Your task to perform on an android device: open app "Reddit" (install if not already installed) and go to login screen Image 0: 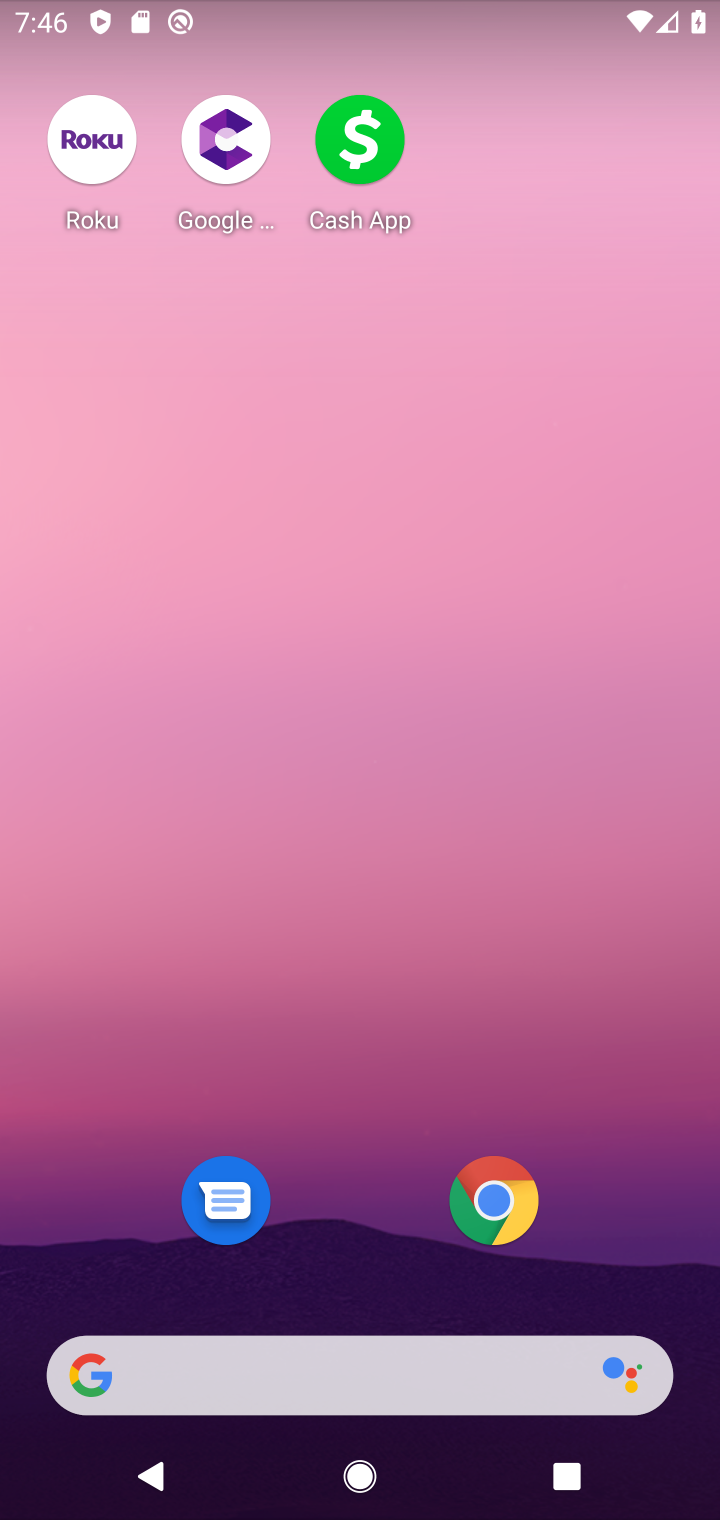
Step 0: drag from (367, 1299) to (617, 40)
Your task to perform on an android device: open app "Reddit" (install if not already installed) and go to login screen Image 1: 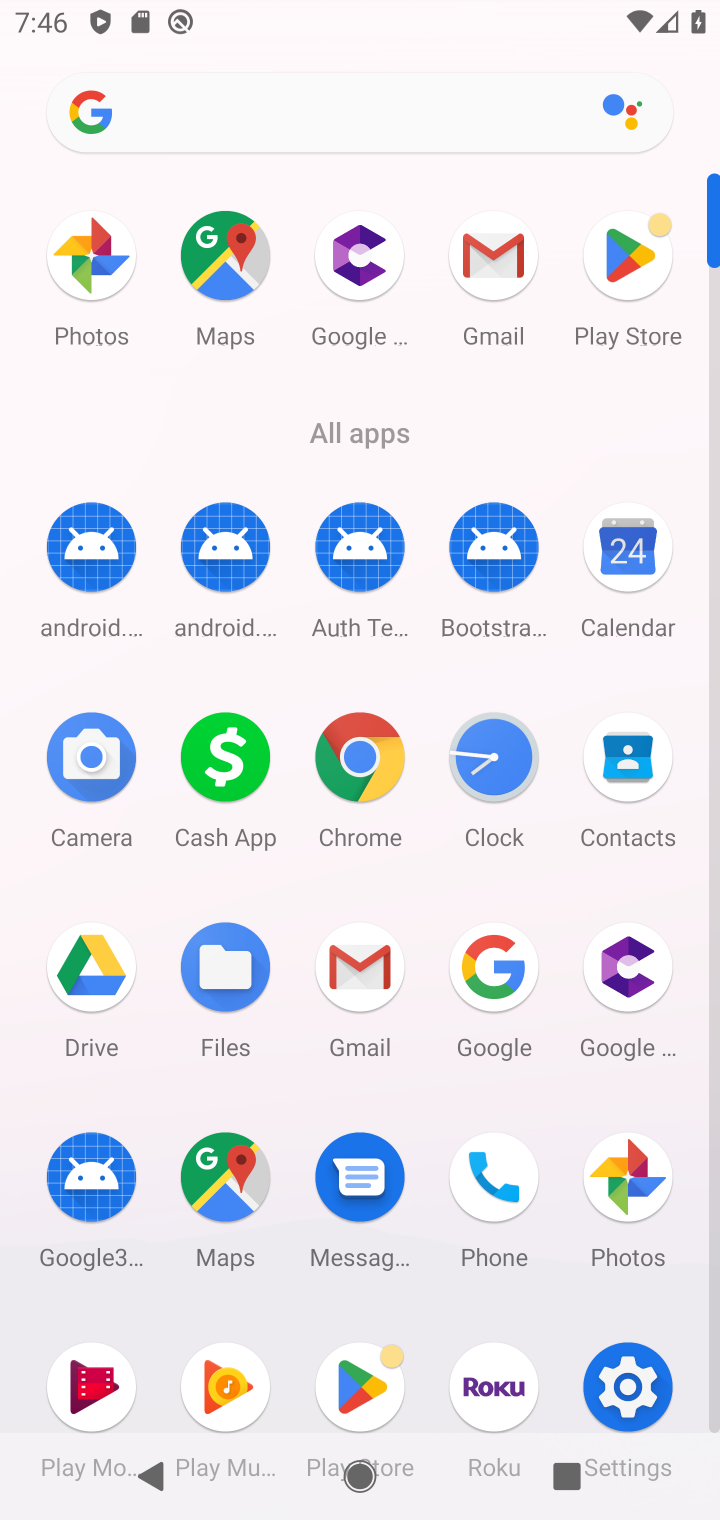
Step 1: click (654, 261)
Your task to perform on an android device: open app "Reddit" (install if not already installed) and go to login screen Image 2: 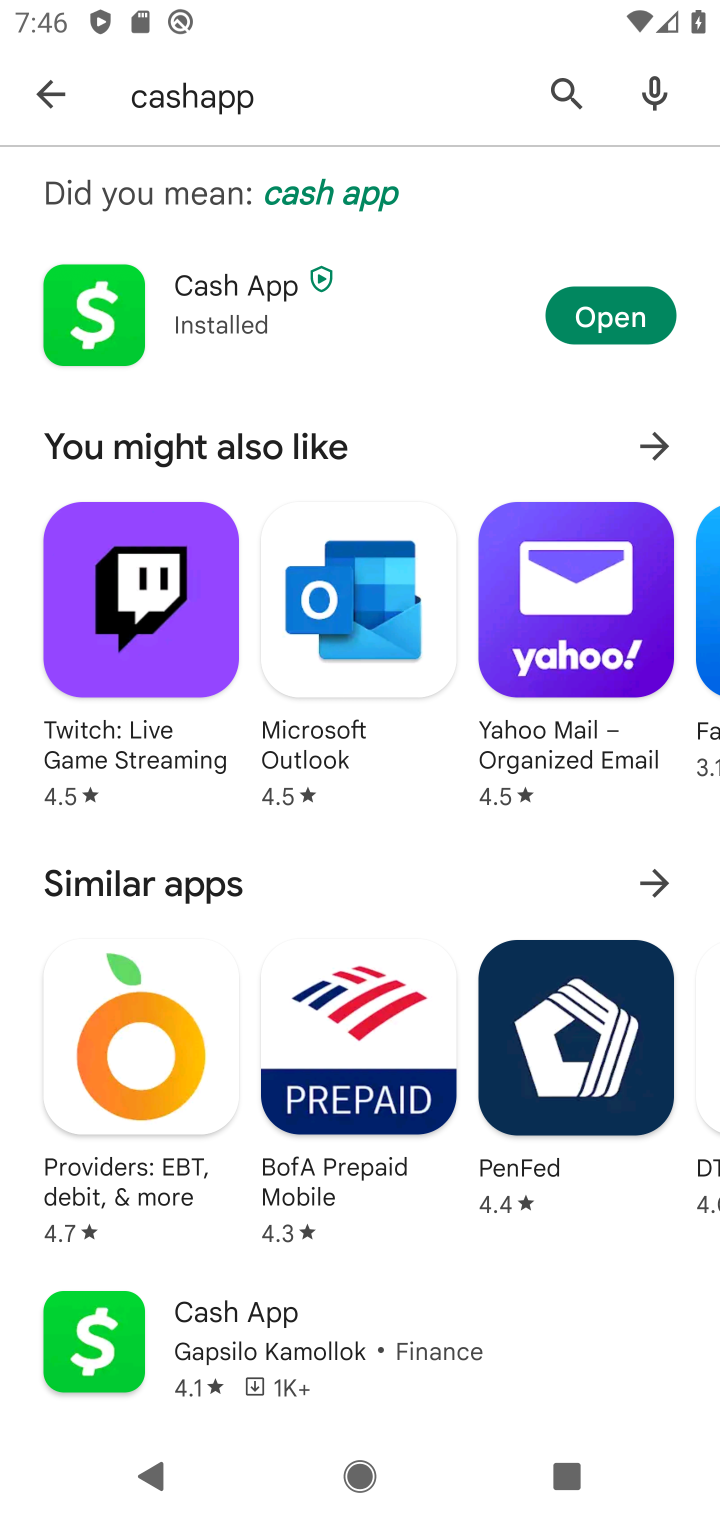
Step 2: click (257, 85)
Your task to perform on an android device: open app "Reddit" (install if not already installed) and go to login screen Image 3: 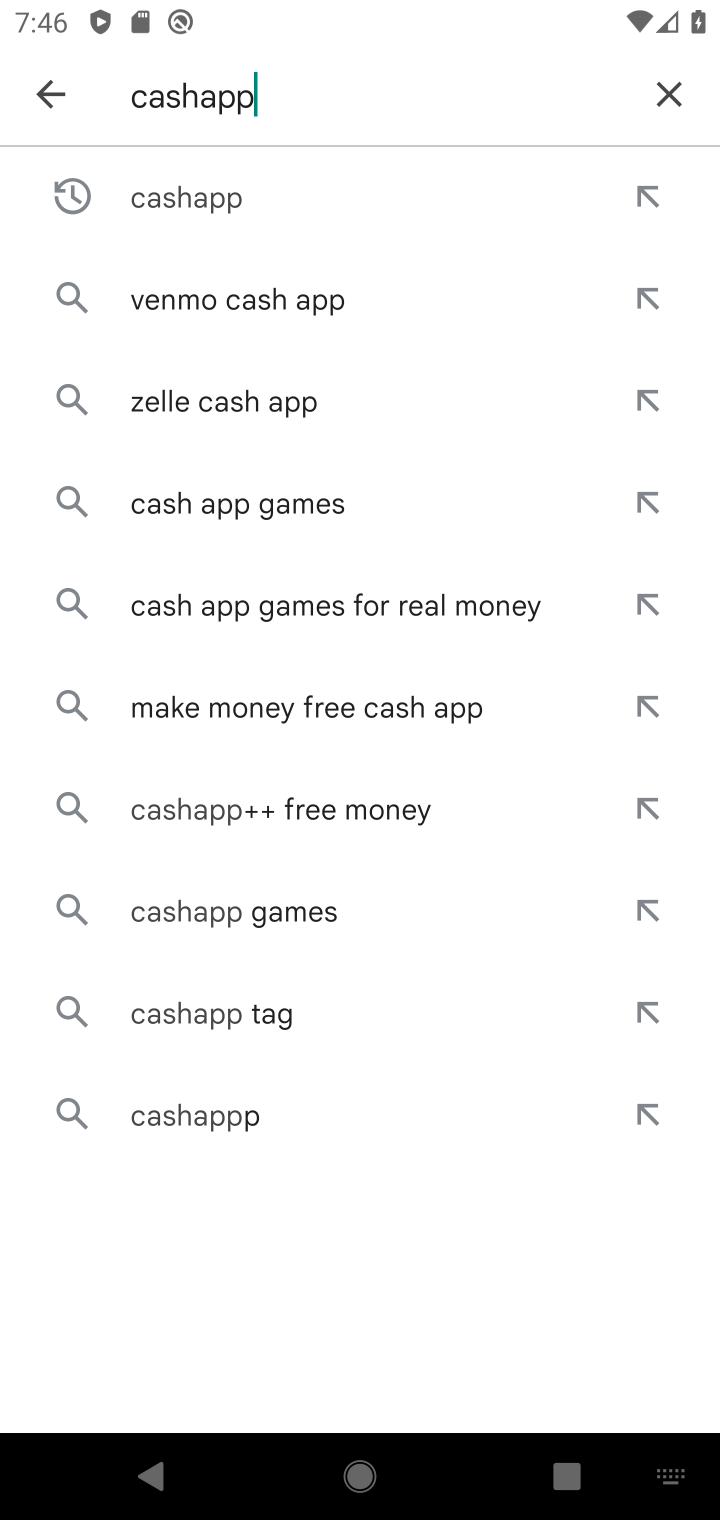
Step 3: click (655, 88)
Your task to perform on an android device: open app "Reddit" (install if not already installed) and go to login screen Image 4: 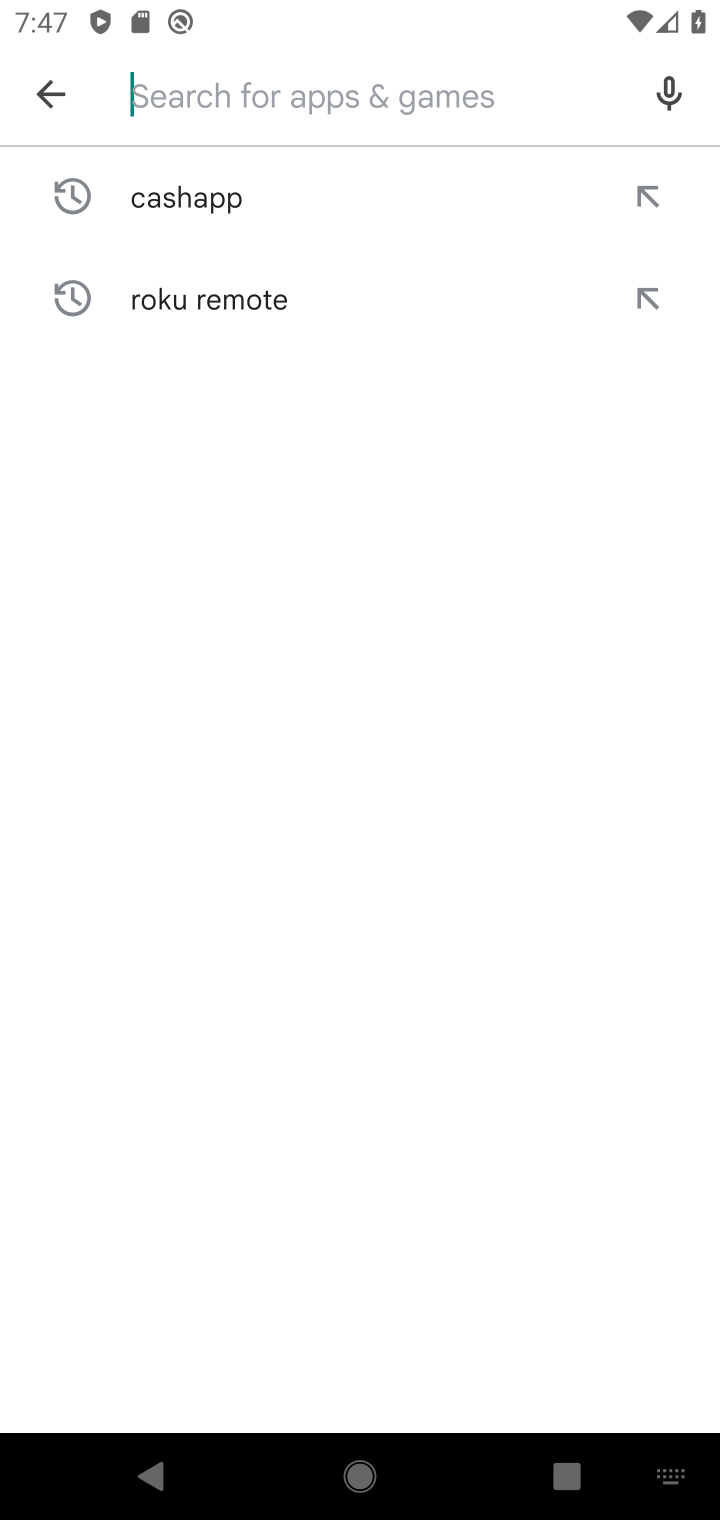
Step 4: type "Reddit"
Your task to perform on an android device: open app "Reddit" (install if not already installed) and go to login screen Image 5: 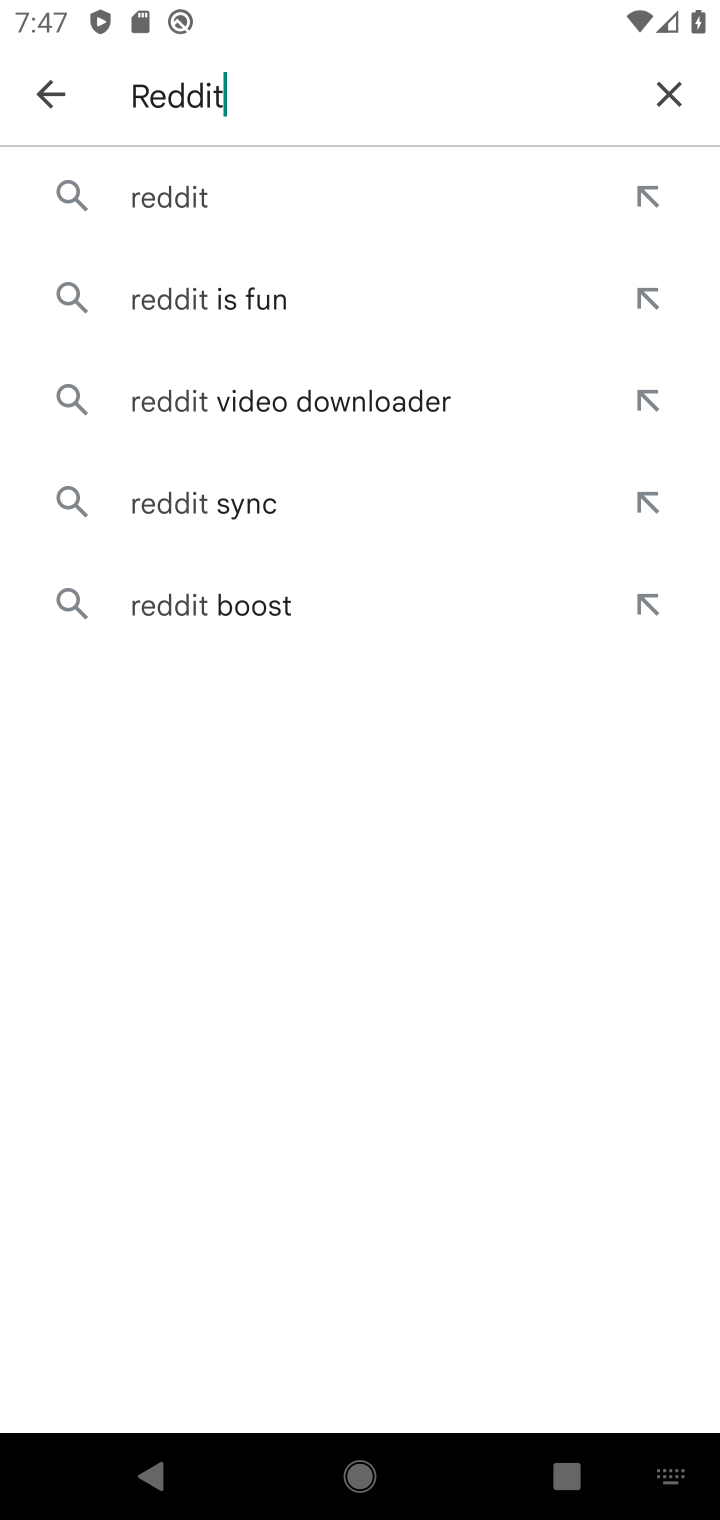
Step 5: click (202, 214)
Your task to perform on an android device: open app "Reddit" (install if not already installed) and go to login screen Image 6: 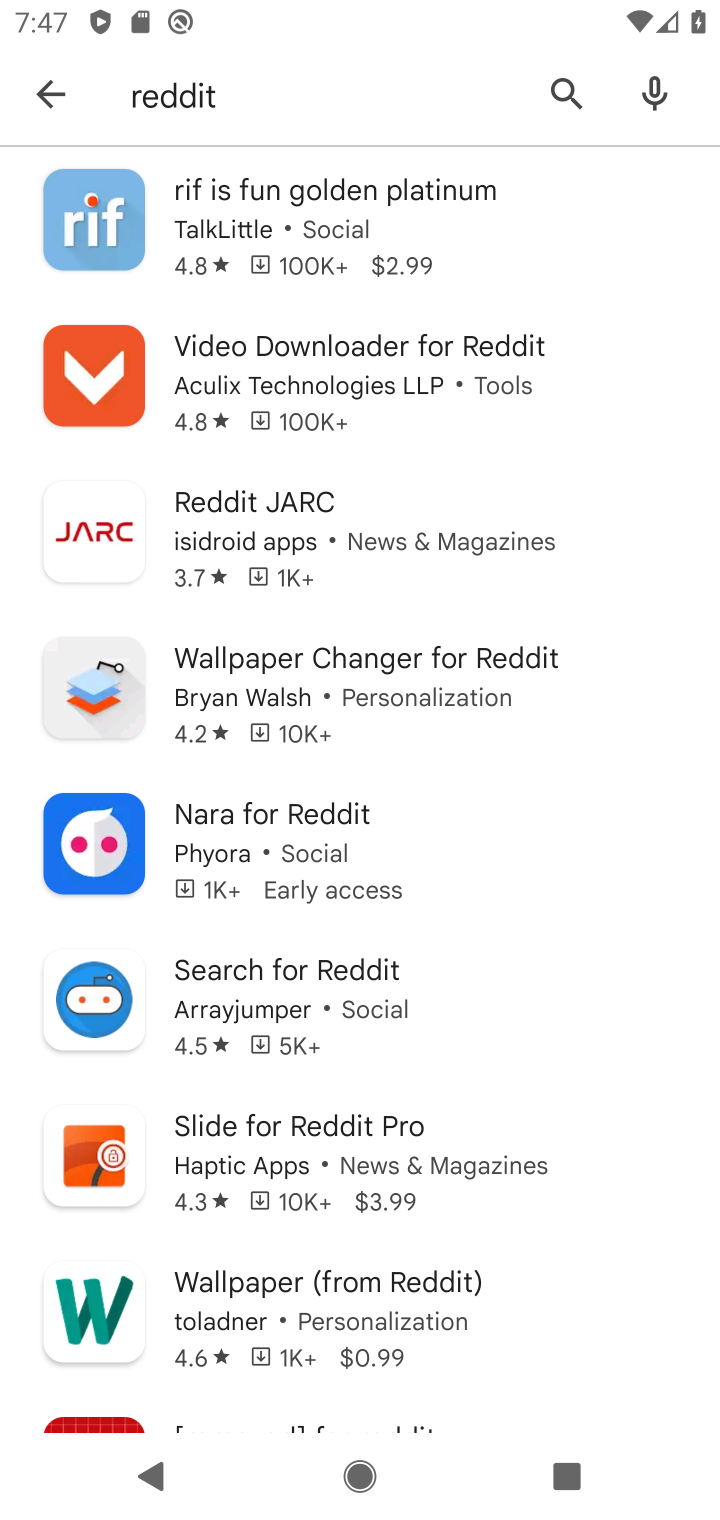
Step 6: task complete